Your task to perform on an android device: turn pop-ups off in chrome Image 0: 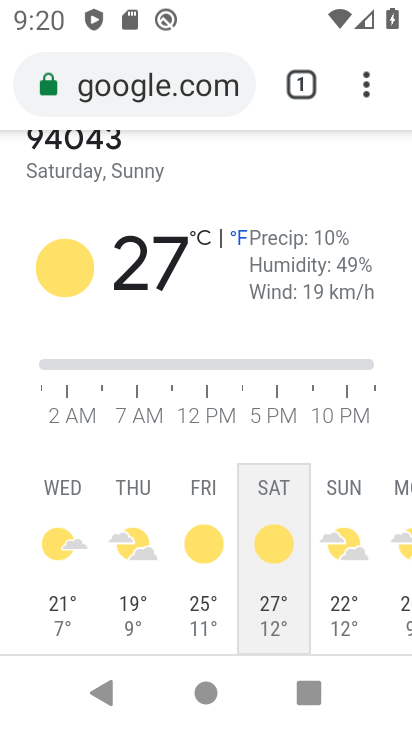
Step 0: press home button
Your task to perform on an android device: turn pop-ups off in chrome Image 1: 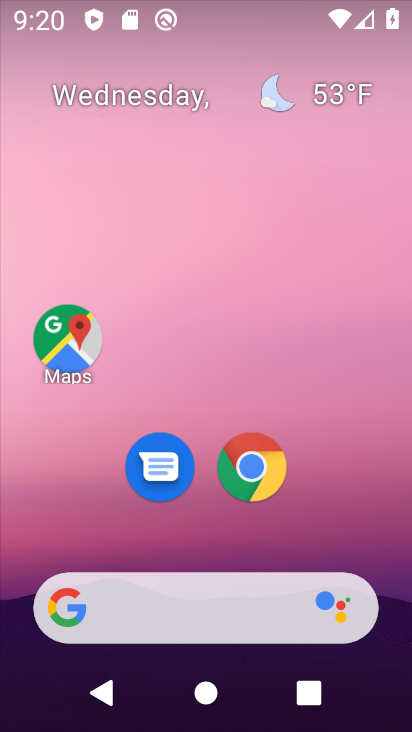
Step 1: click (245, 495)
Your task to perform on an android device: turn pop-ups off in chrome Image 2: 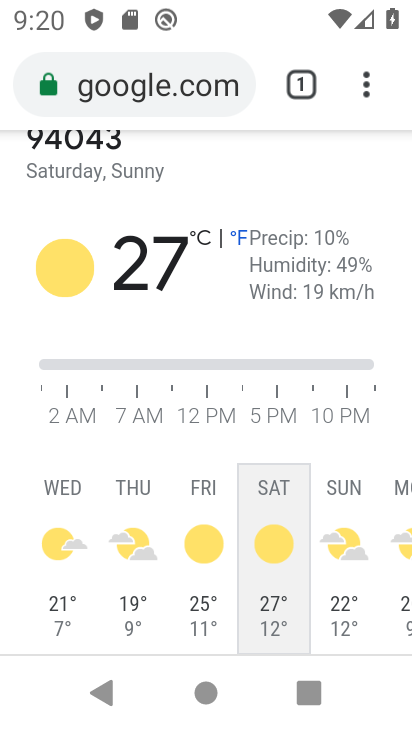
Step 2: click (367, 77)
Your task to perform on an android device: turn pop-ups off in chrome Image 3: 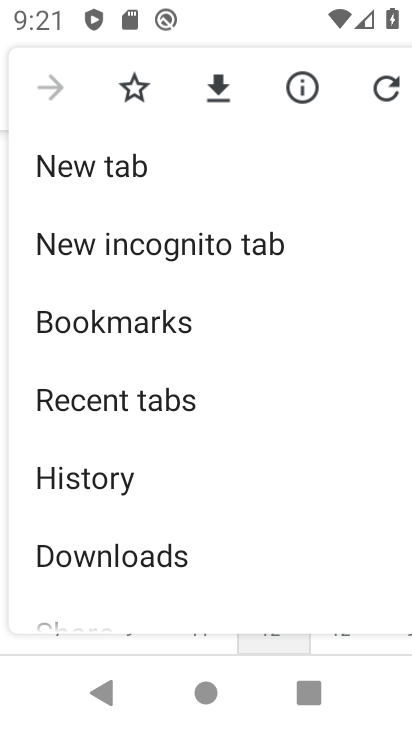
Step 3: drag from (202, 587) to (261, 197)
Your task to perform on an android device: turn pop-ups off in chrome Image 4: 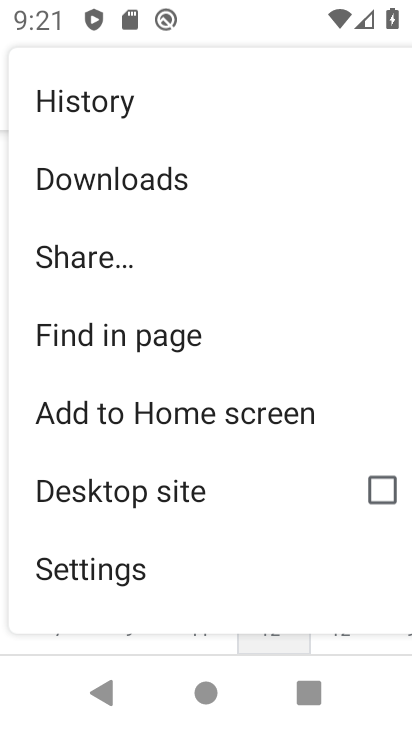
Step 4: click (131, 576)
Your task to perform on an android device: turn pop-ups off in chrome Image 5: 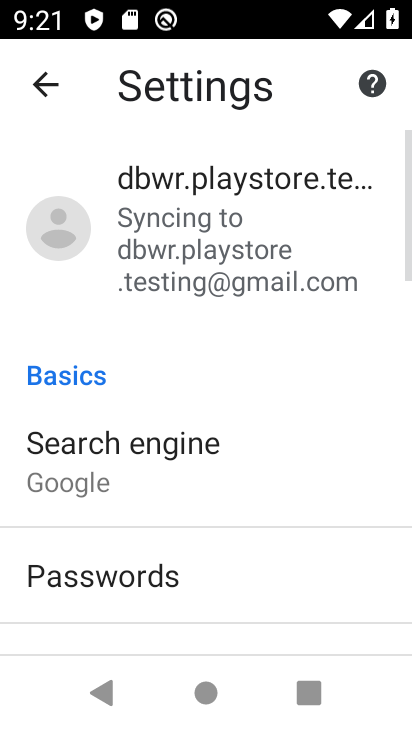
Step 5: drag from (132, 573) to (182, 90)
Your task to perform on an android device: turn pop-ups off in chrome Image 6: 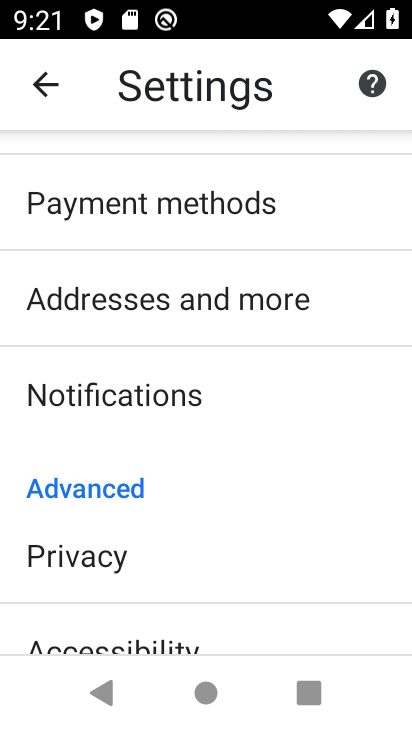
Step 6: drag from (109, 516) to (152, 238)
Your task to perform on an android device: turn pop-ups off in chrome Image 7: 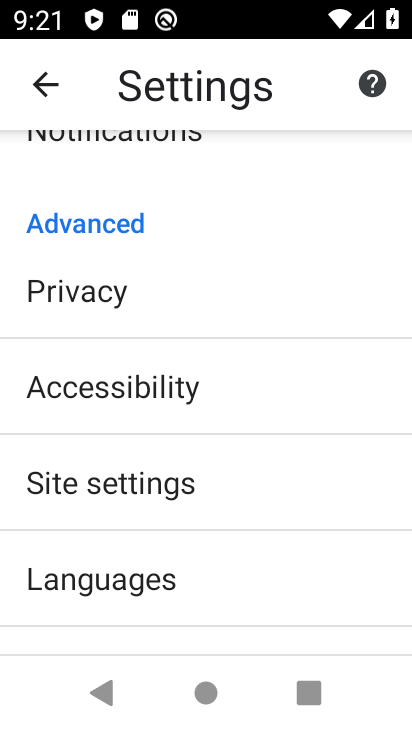
Step 7: click (99, 469)
Your task to perform on an android device: turn pop-ups off in chrome Image 8: 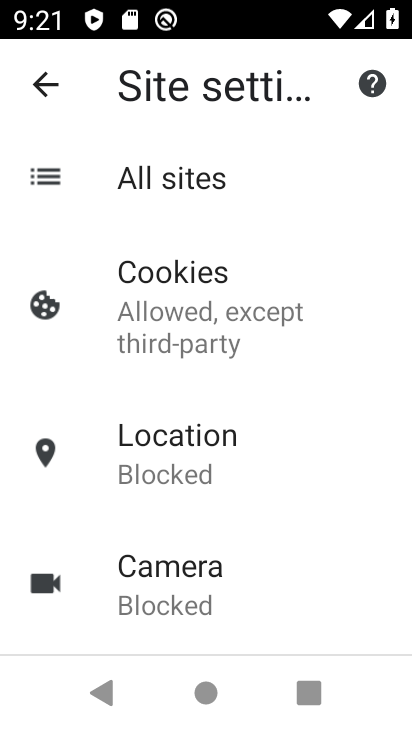
Step 8: drag from (144, 487) to (185, 85)
Your task to perform on an android device: turn pop-ups off in chrome Image 9: 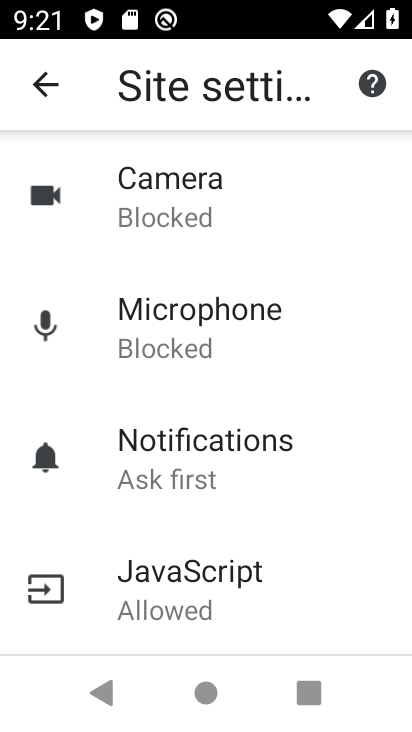
Step 9: drag from (183, 504) to (217, 310)
Your task to perform on an android device: turn pop-ups off in chrome Image 10: 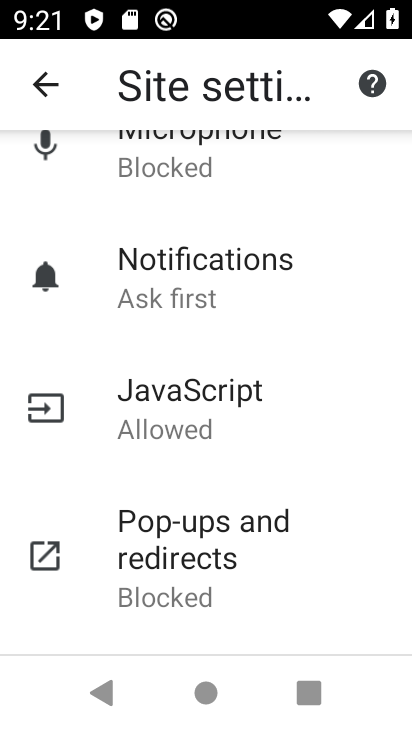
Step 10: click (199, 567)
Your task to perform on an android device: turn pop-ups off in chrome Image 11: 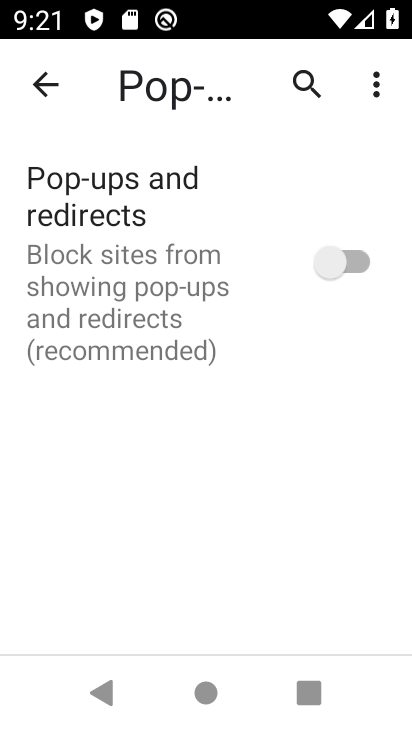
Step 11: task complete